Your task to perform on an android device: turn on bluetooth scan Image 0: 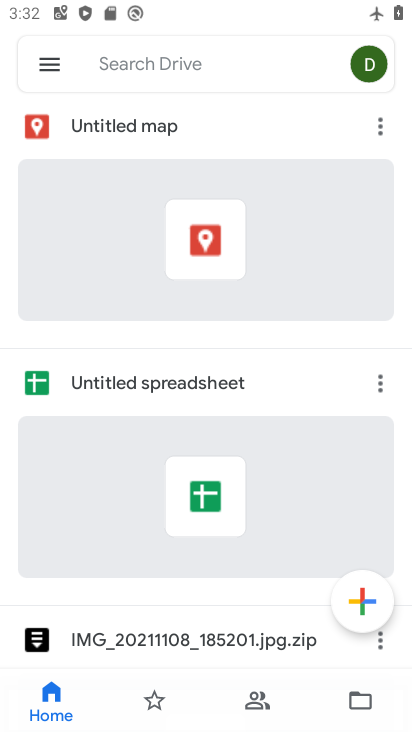
Step 0: press home button
Your task to perform on an android device: turn on bluetooth scan Image 1: 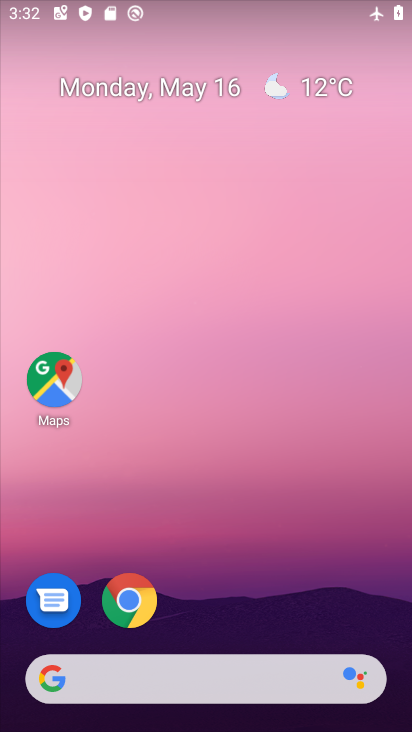
Step 1: drag from (217, 630) to (148, 50)
Your task to perform on an android device: turn on bluetooth scan Image 2: 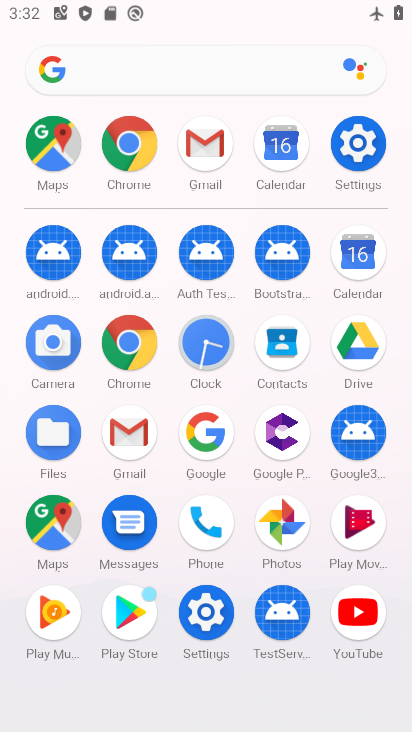
Step 2: click (206, 620)
Your task to perform on an android device: turn on bluetooth scan Image 3: 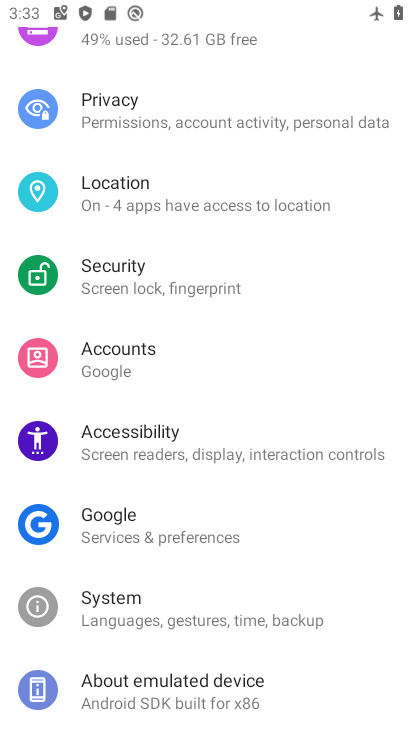
Step 3: click (78, 202)
Your task to perform on an android device: turn on bluetooth scan Image 4: 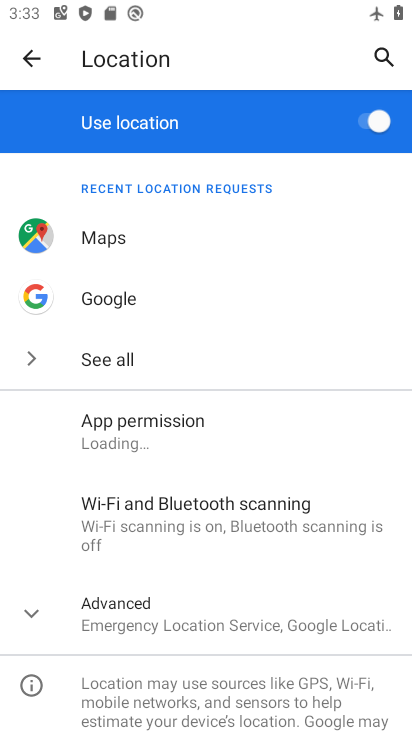
Step 4: click (165, 630)
Your task to perform on an android device: turn on bluetooth scan Image 5: 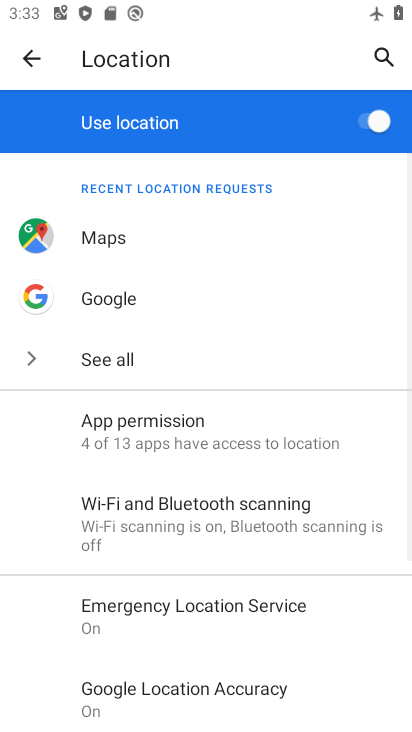
Step 5: drag from (191, 626) to (160, 178)
Your task to perform on an android device: turn on bluetooth scan Image 6: 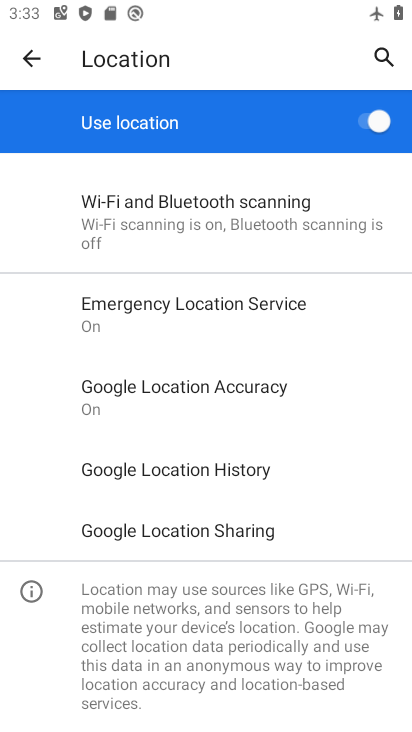
Step 6: click (193, 231)
Your task to perform on an android device: turn on bluetooth scan Image 7: 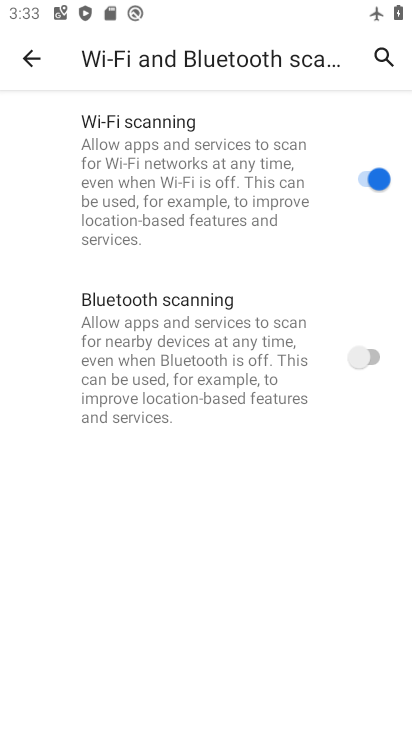
Step 7: click (357, 349)
Your task to perform on an android device: turn on bluetooth scan Image 8: 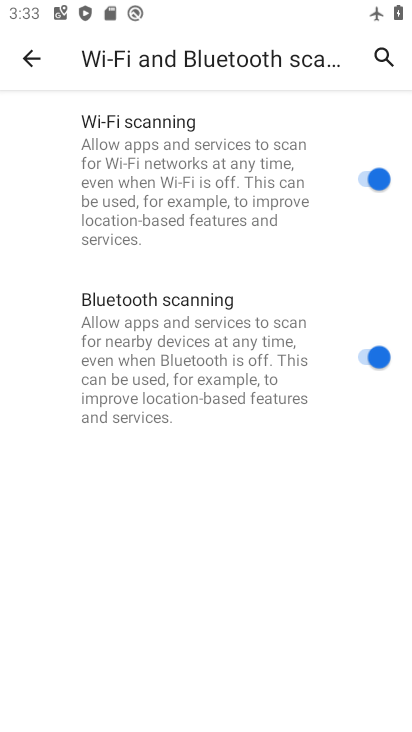
Step 8: task complete